Your task to perform on an android device: Open my contact list Image 0: 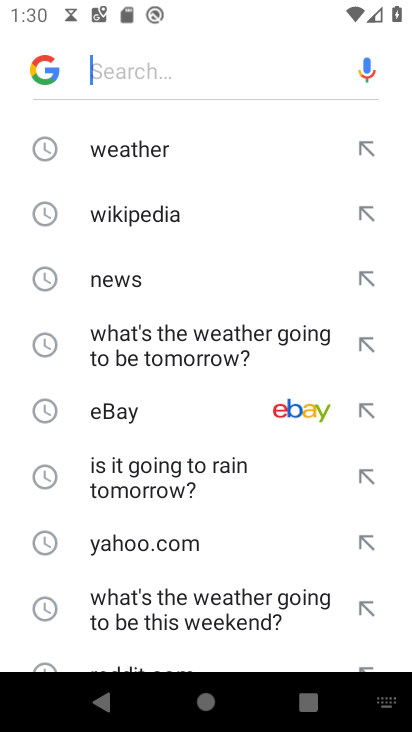
Step 0: press home button
Your task to perform on an android device: Open my contact list Image 1: 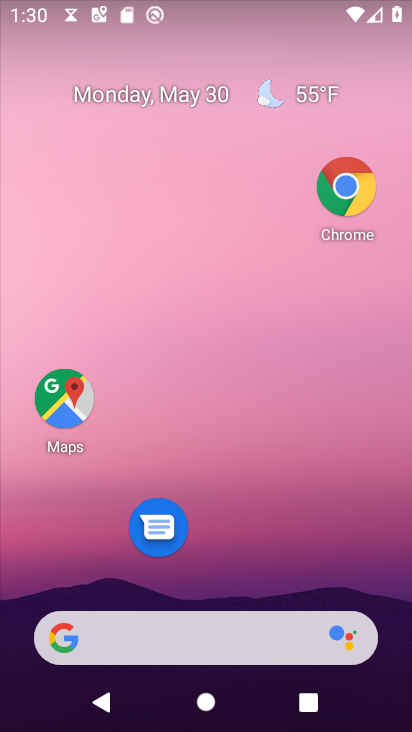
Step 1: drag from (218, 584) to (274, 141)
Your task to perform on an android device: Open my contact list Image 2: 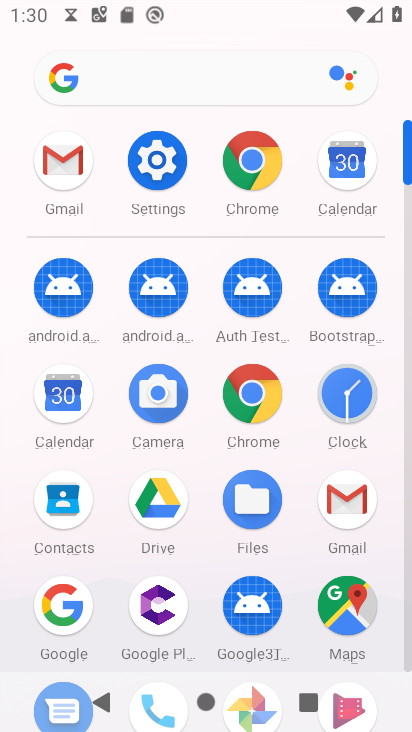
Step 2: click (56, 493)
Your task to perform on an android device: Open my contact list Image 3: 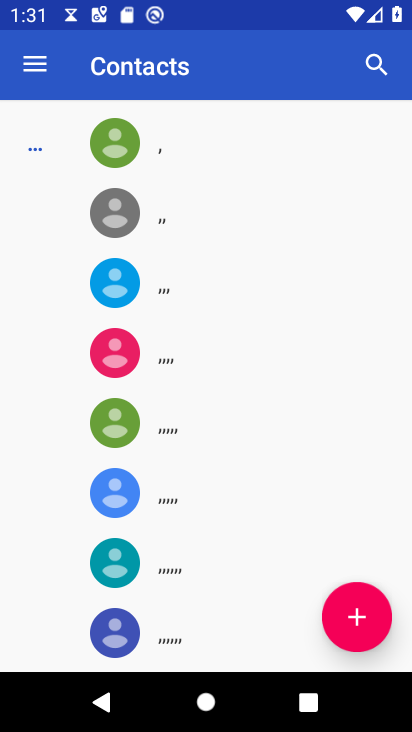
Step 3: task complete